Your task to perform on an android device: change alarm snooze length Image 0: 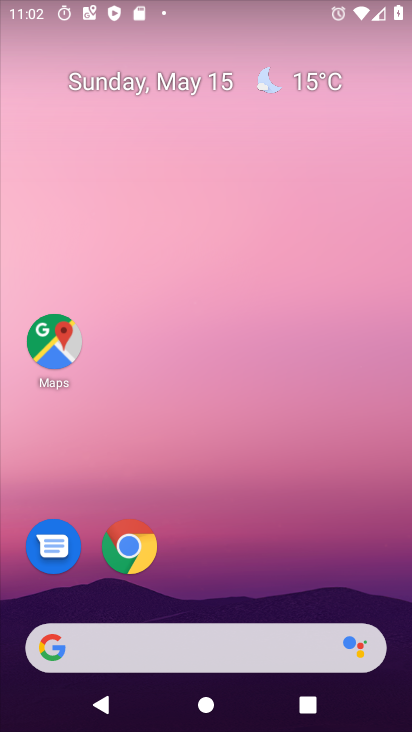
Step 0: click (219, 278)
Your task to perform on an android device: change alarm snooze length Image 1: 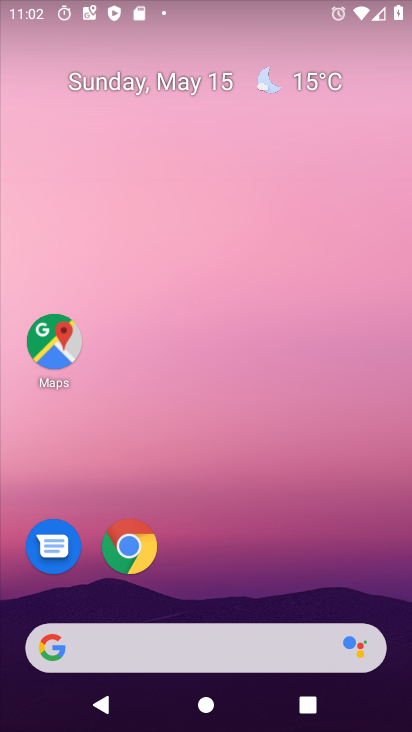
Step 1: drag from (218, 575) to (181, 148)
Your task to perform on an android device: change alarm snooze length Image 2: 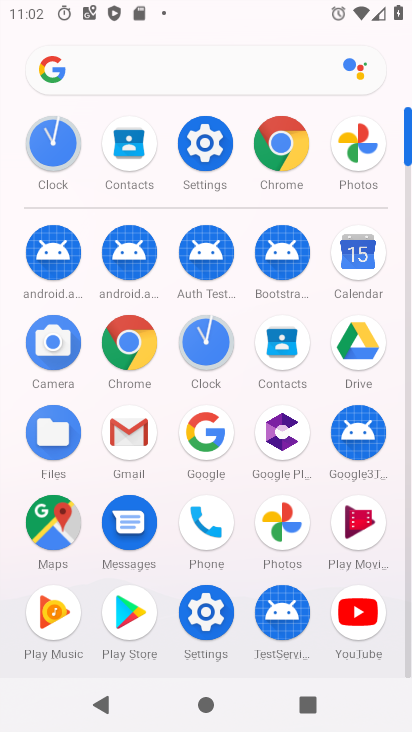
Step 2: click (209, 347)
Your task to perform on an android device: change alarm snooze length Image 3: 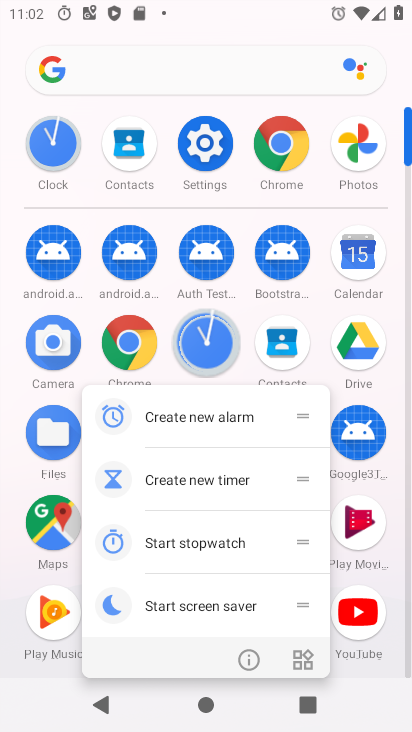
Step 3: click (210, 346)
Your task to perform on an android device: change alarm snooze length Image 4: 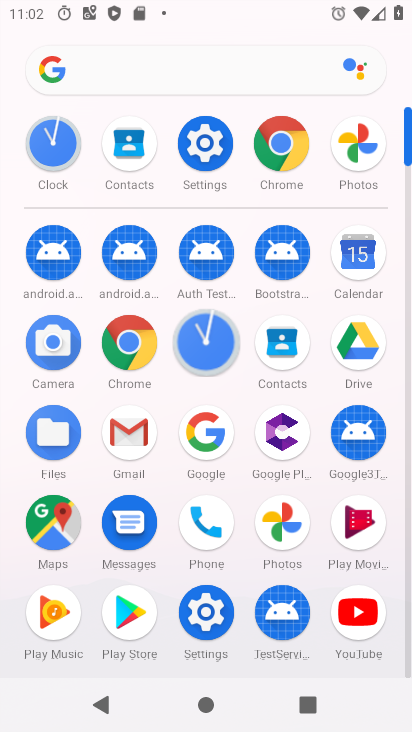
Step 4: click (210, 346)
Your task to perform on an android device: change alarm snooze length Image 5: 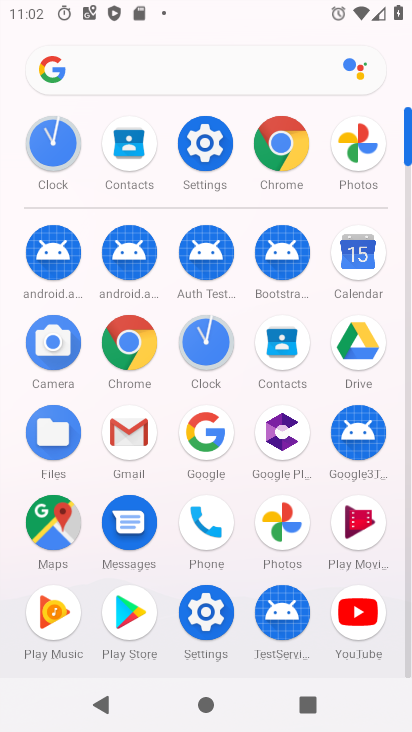
Step 5: click (210, 346)
Your task to perform on an android device: change alarm snooze length Image 6: 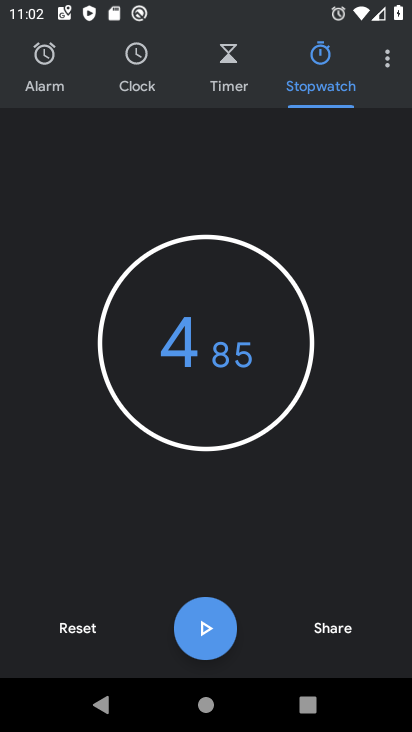
Step 6: click (386, 55)
Your task to perform on an android device: change alarm snooze length Image 7: 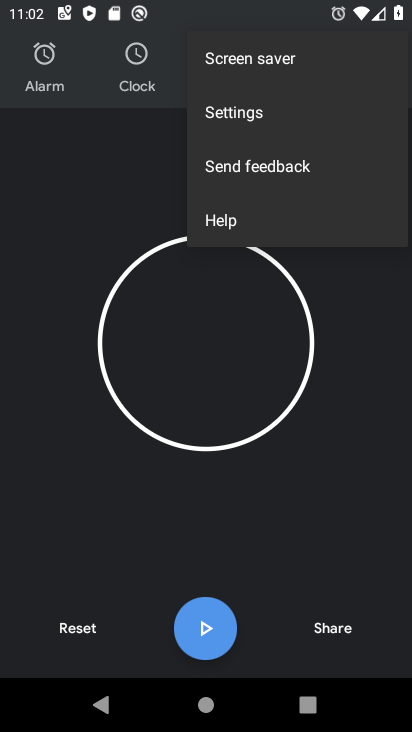
Step 7: click (227, 101)
Your task to perform on an android device: change alarm snooze length Image 8: 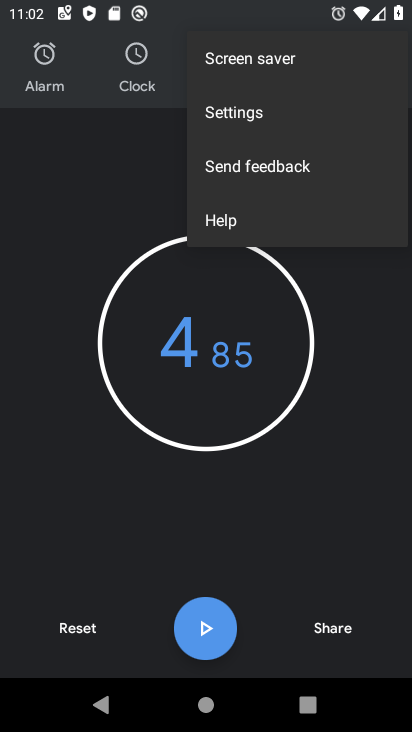
Step 8: click (227, 104)
Your task to perform on an android device: change alarm snooze length Image 9: 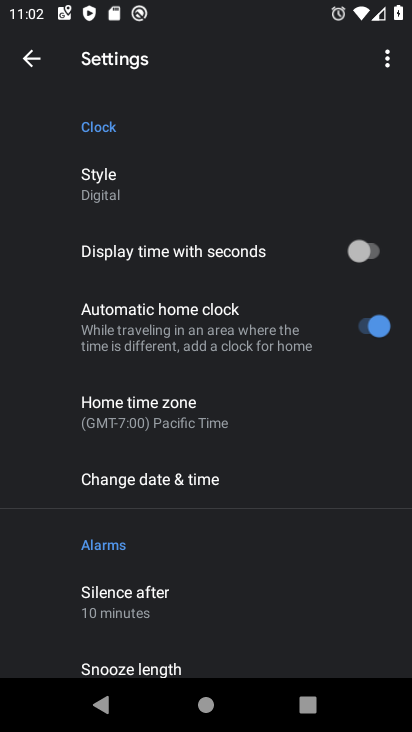
Step 9: drag from (151, 390) to (143, 117)
Your task to perform on an android device: change alarm snooze length Image 10: 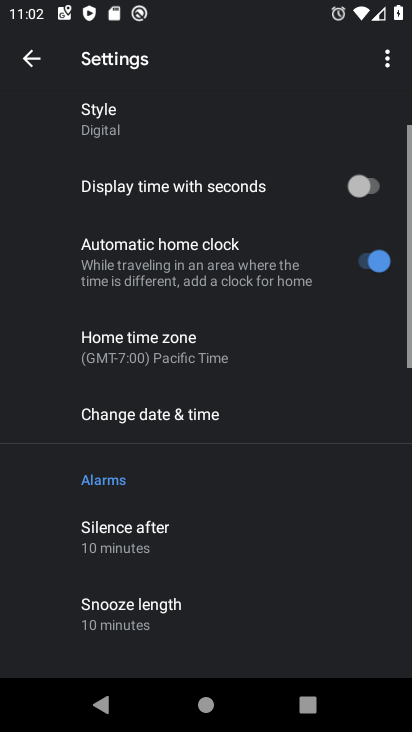
Step 10: drag from (166, 521) to (209, 90)
Your task to perform on an android device: change alarm snooze length Image 11: 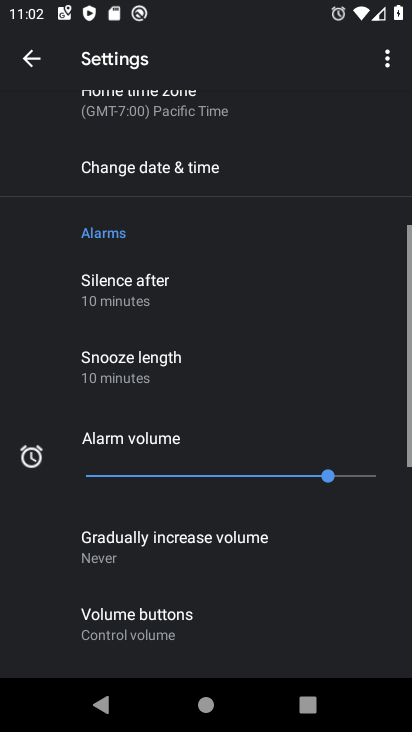
Step 11: click (132, 659)
Your task to perform on an android device: change alarm snooze length Image 12: 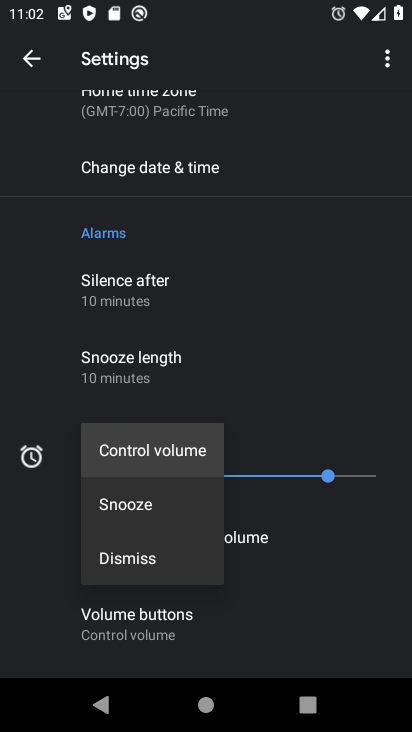
Step 12: click (26, 53)
Your task to perform on an android device: change alarm snooze length Image 13: 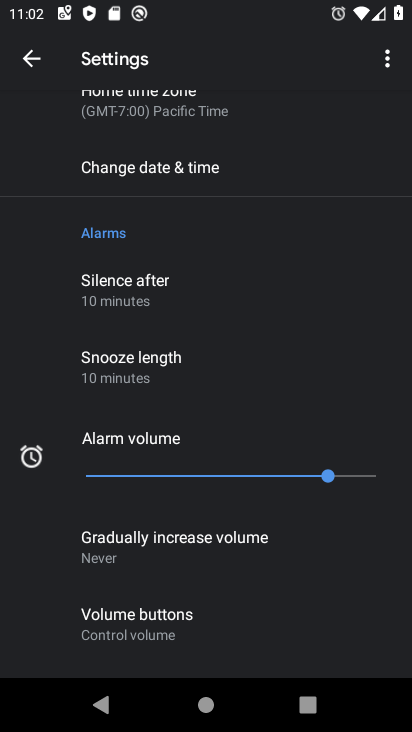
Step 13: click (119, 368)
Your task to perform on an android device: change alarm snooze length Image 14: 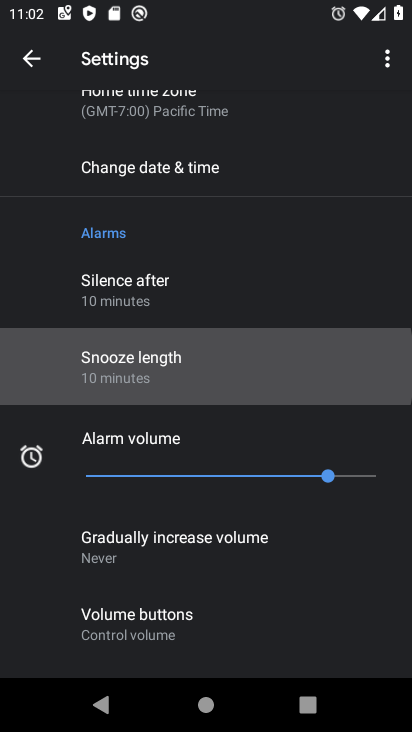
Step 14: click (119, 368)
Your task to perform on an android device: change alarm snooze length Image 15: 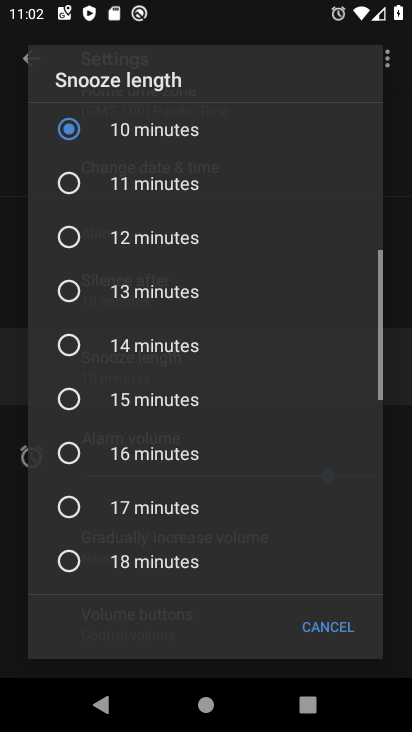
Step 15: click (119, 368)
Your task to perform on an android device: change alarm snooze length Image 16: 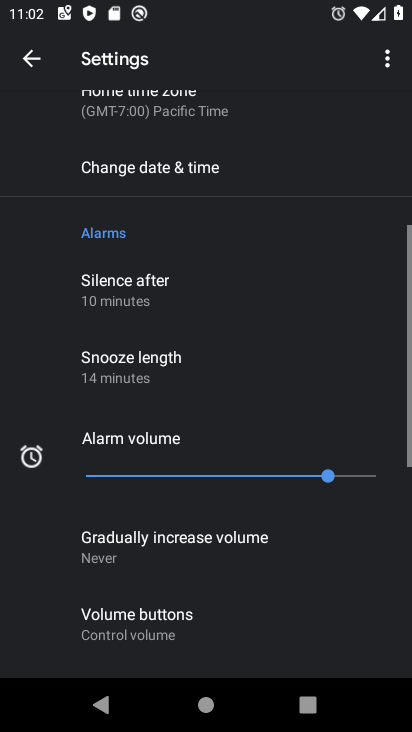
Step 16: click (116, 367)
Your task to perform on an android device: change alarm snooze length Image 17: 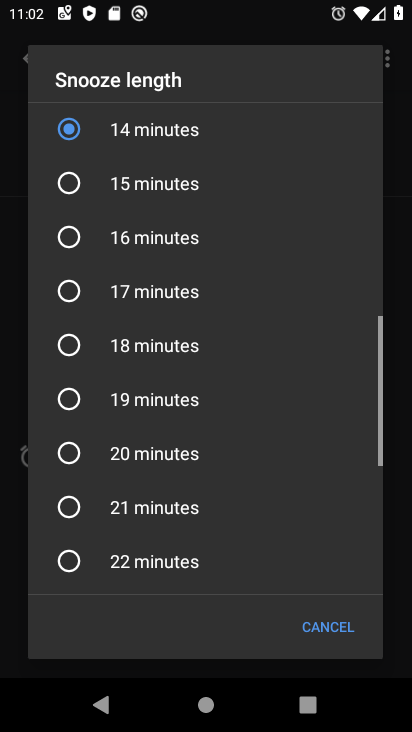
Step 17: click (72, 343)
Your task to perform on an android device: change alarm snooze length Image 18: 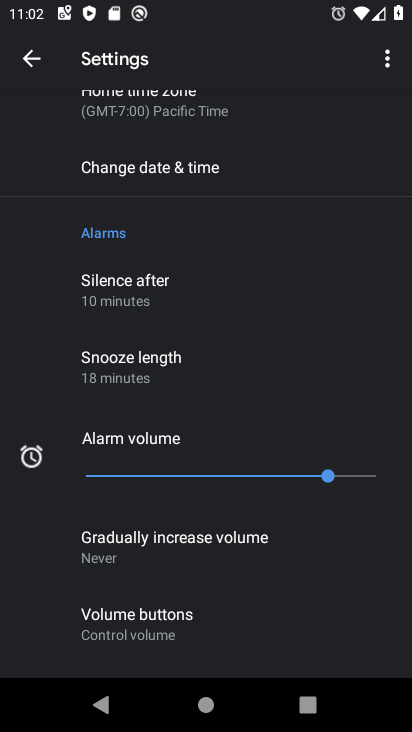
Step 18: task complete